Your task to perform on an android device: change your default location settings in chrome Image 0: 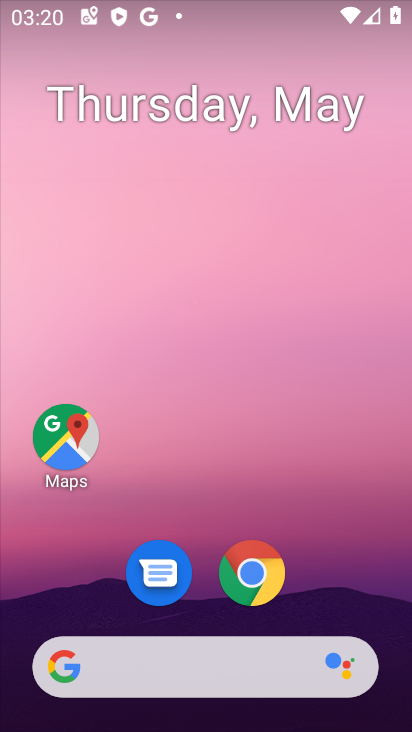
Step 0: click (261, 568)
Your task to perform on an android device: change your default location settings in chrome Image 1: 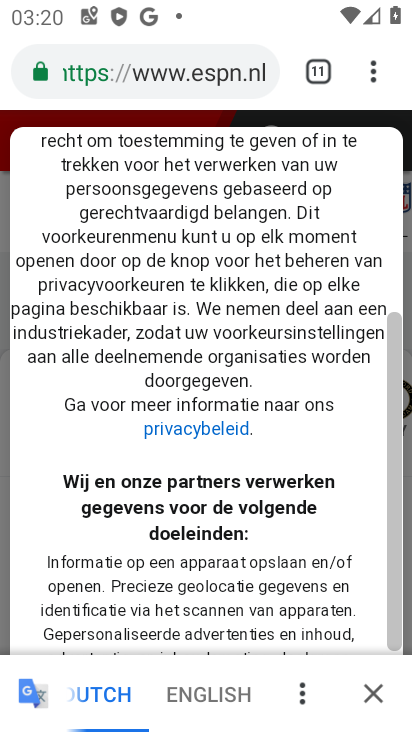
Step 1: click (364, 71)
Your task to perform on an android device: change your default location settings in chrome Image 2: 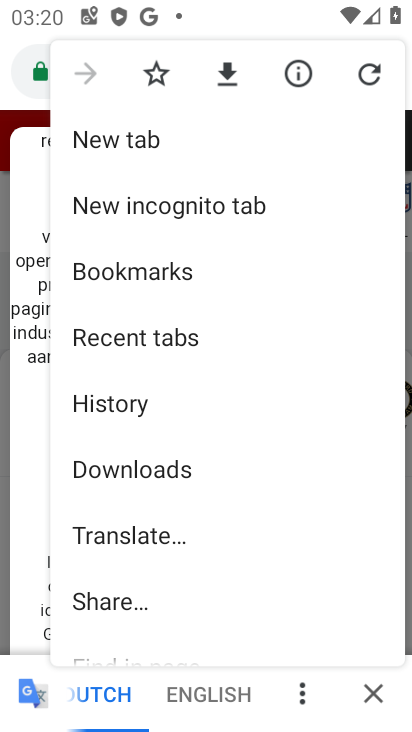
Step 2: drag from (198, 577) to (223, 246)
Your task to perform on an android device: change your default location settings in chrome Image 3: 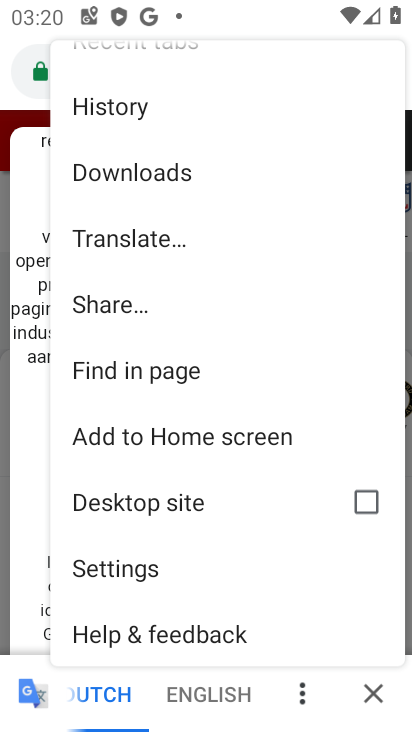
Step 3: click (166, 578)
Your task to perform on an android device: change your default location settings in chrome Image 4: 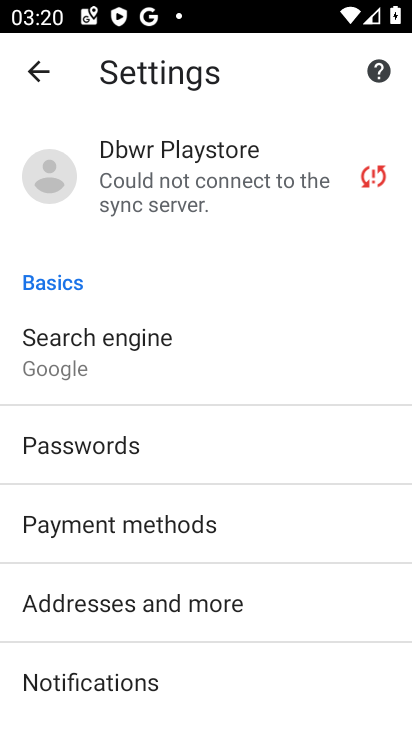
Step 4: click (166, 341)
Your task to perform on an android device: change your default location settings in chrome Image 5: 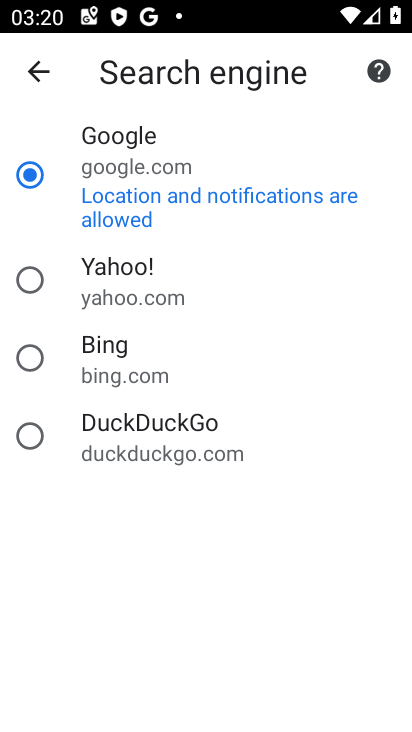
Step 5: click (34, 81)
Your task to perform on an android device: change your default location settings in chrome Image 6: 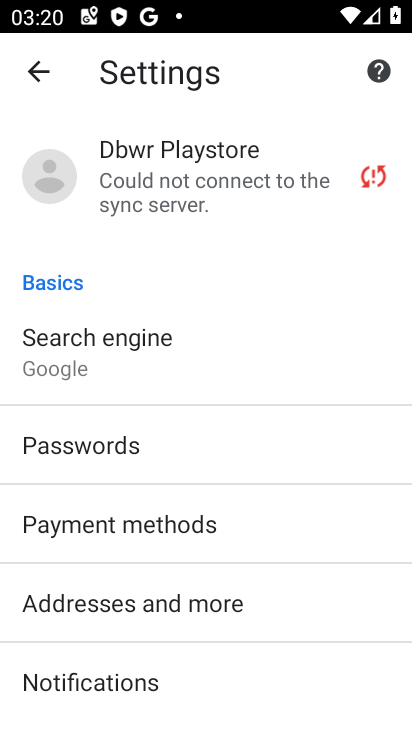
Step 6: drag from (172, 621) to (173, 334)
Your task to perform on an android device: change your default location settings in chrome Image 7: 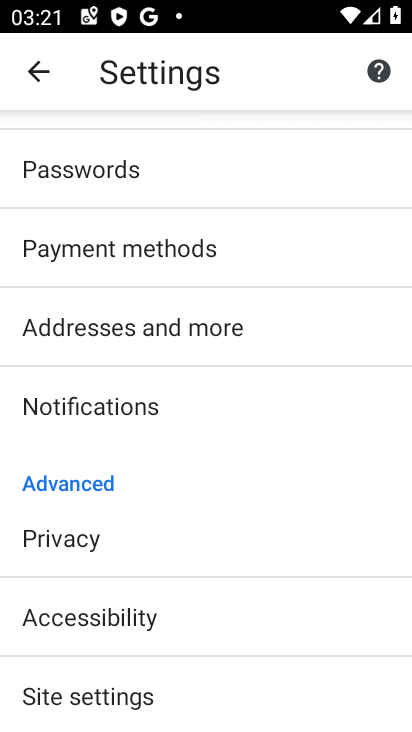
Step 7: drag from (212, 612) to (193, 276)
Your task to perform on an android device: change your default location settings in chrome Image 8: 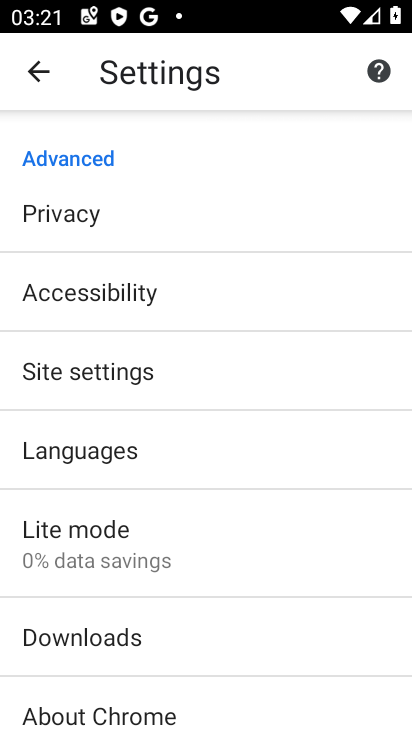
Step 8: click (132, 365)
Your task to perform on an android device: change your default location settings in chrome Image 9: 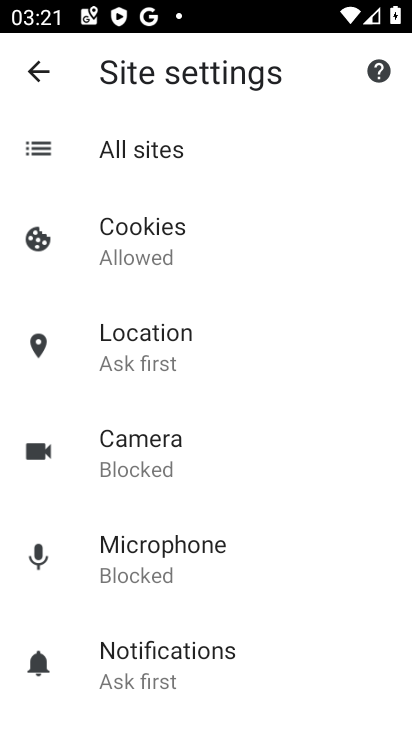
Step 9: click (131, 336)
Your task to perform on an android device: change your default location settings in chrome Image 10: 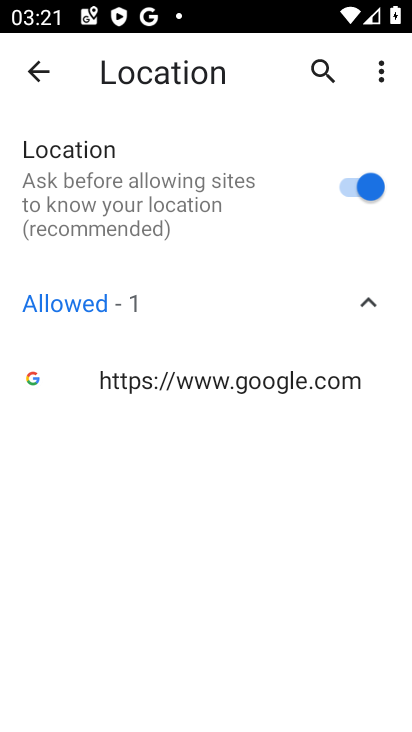
Step 10: click (336, 184)
Your task to perform on an android device: change your default location settings in chrome Image 11: 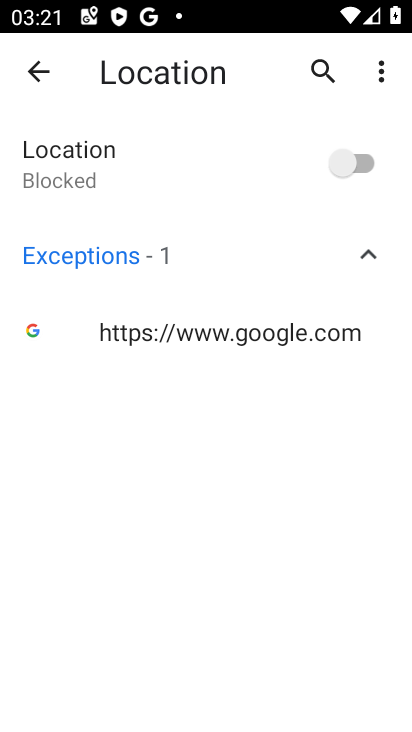
Step 11: task complete